Your task to perform on an android device: Do I have any events this weekend? Image 0: 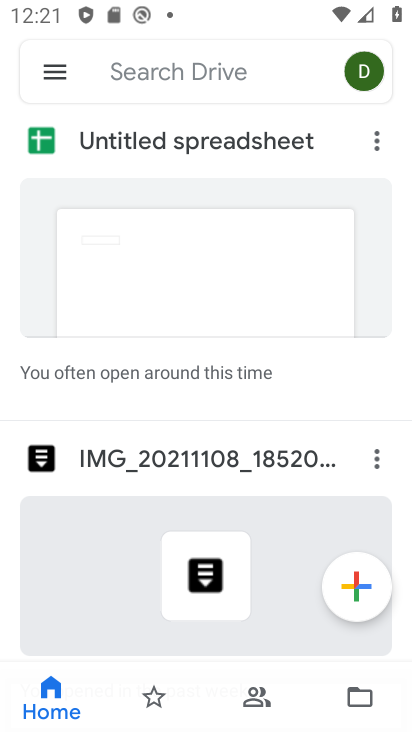
Step 0: press home button
Your task to perform on an android device: Do I have any events this weekend? Image 1: 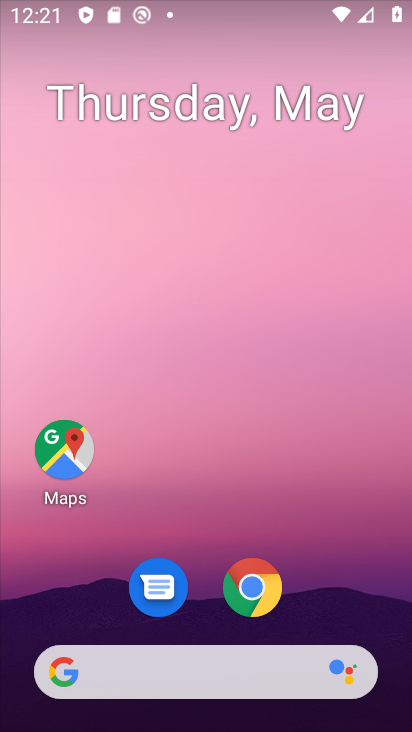
Step 1: drag from (197, 642) to (322, 10)
Your task to perform on an android device: Do I have any events this weekend? Image 2: 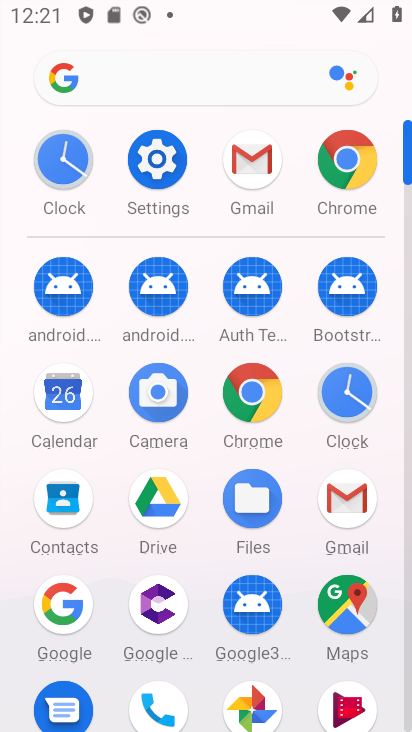
Step 2: click (56, 394)
Your task to perform on an android device: Do I have any events this weekend? Image 3: 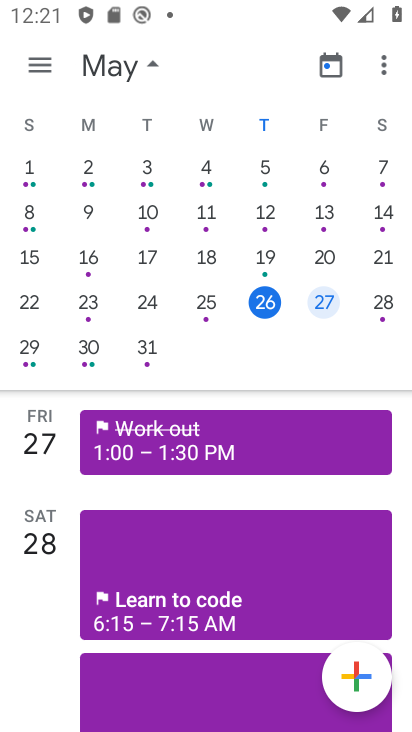
Step 3: click (328, 293)
Your task to perform on an android device: Do I have any events this weekend? Image 4: 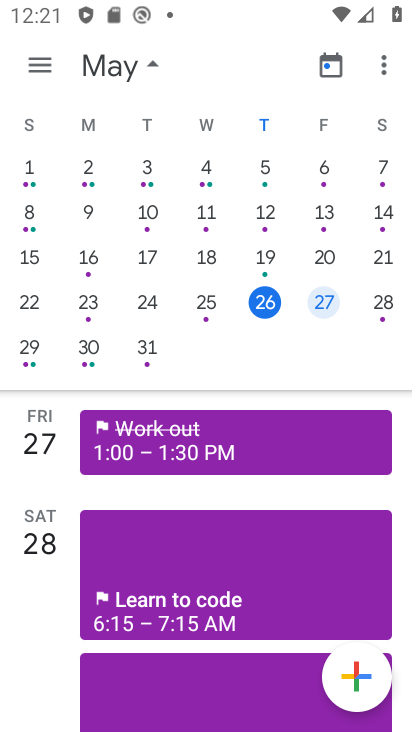
Step 4: task complete